Your task to perform on an android device: move a message to another label in the gmail app Image 0: 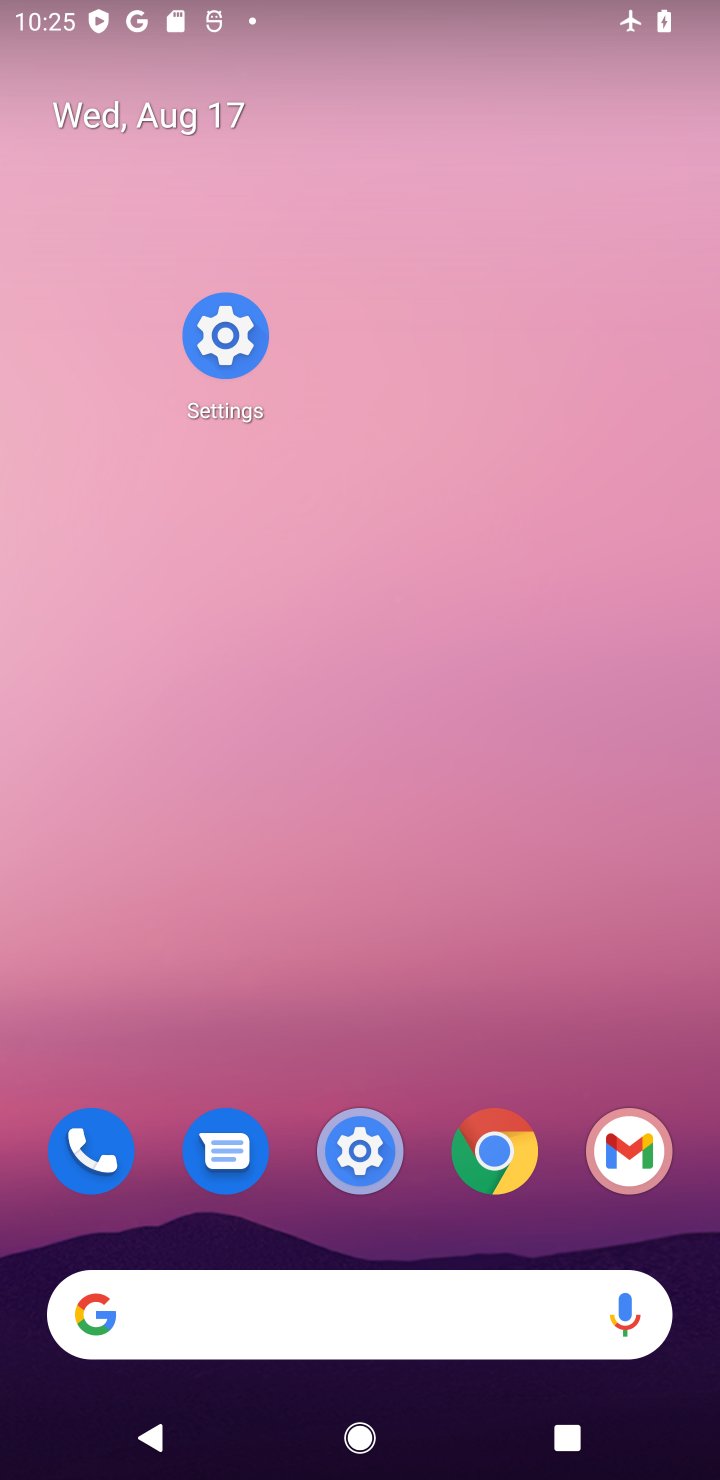
Step 0: click (351, 1250)
Your task to perform on an android device: move a message to another label in the gmail app Image 1: 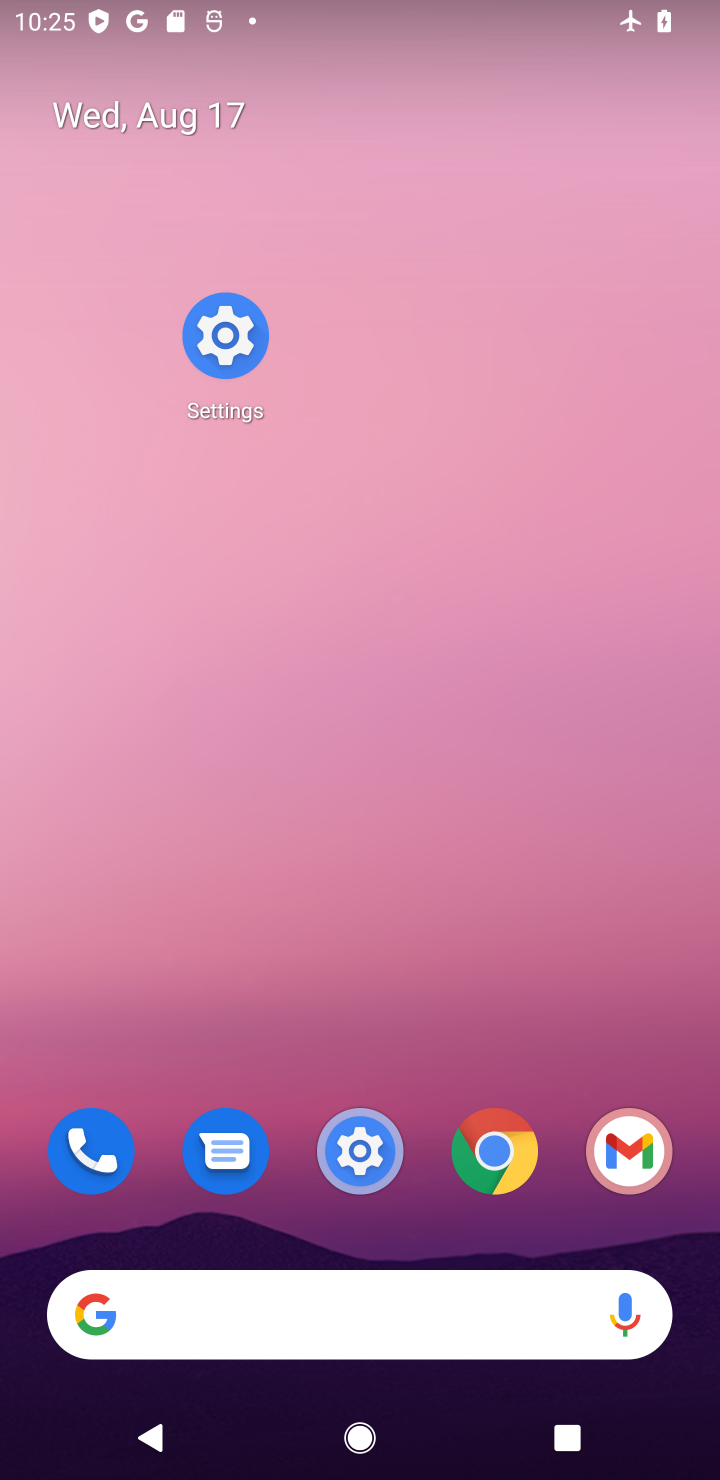
Step 1: click (631, 1148)
Your task to perform on an android device: move a message to another label in the gmail app Image 2: 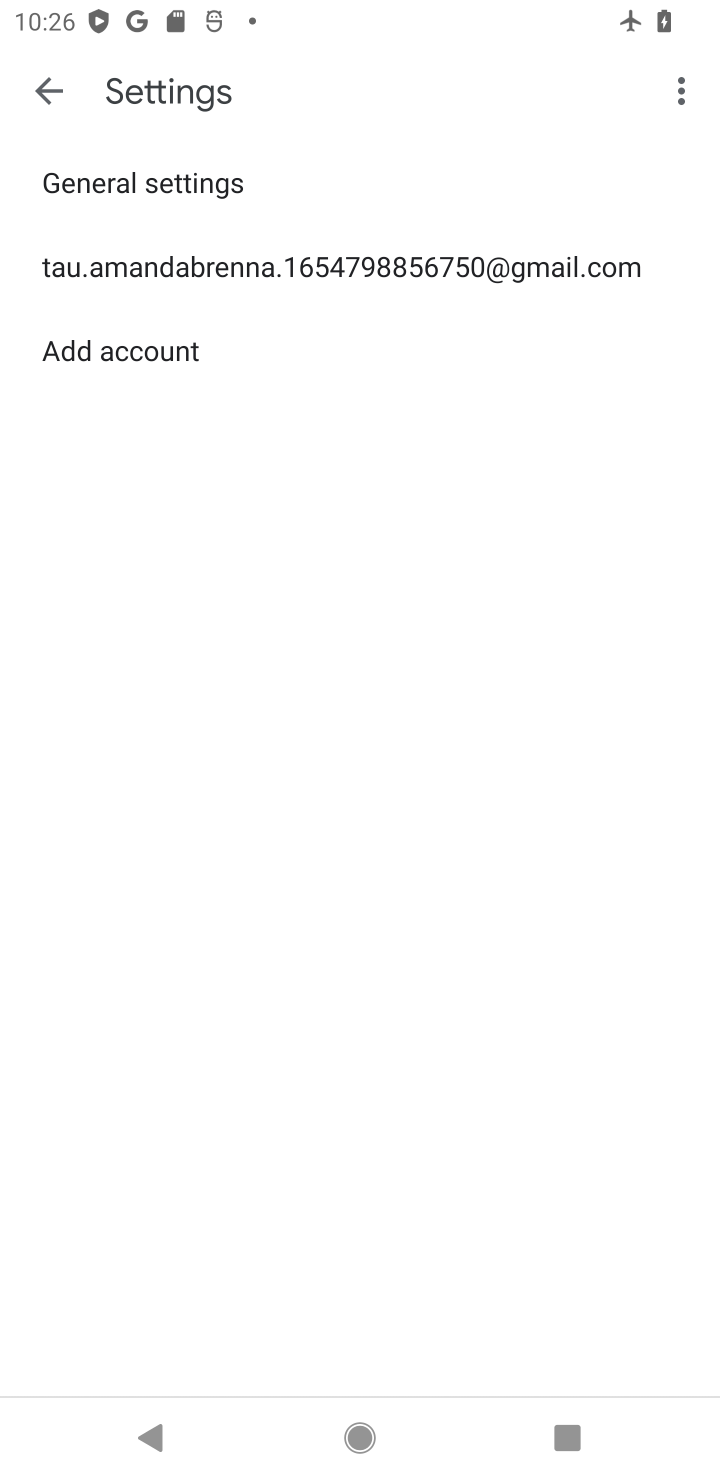
Step 2: click (29, 105)
Your task to perform on an android device: move a message to another label in the gmail app Image 3: 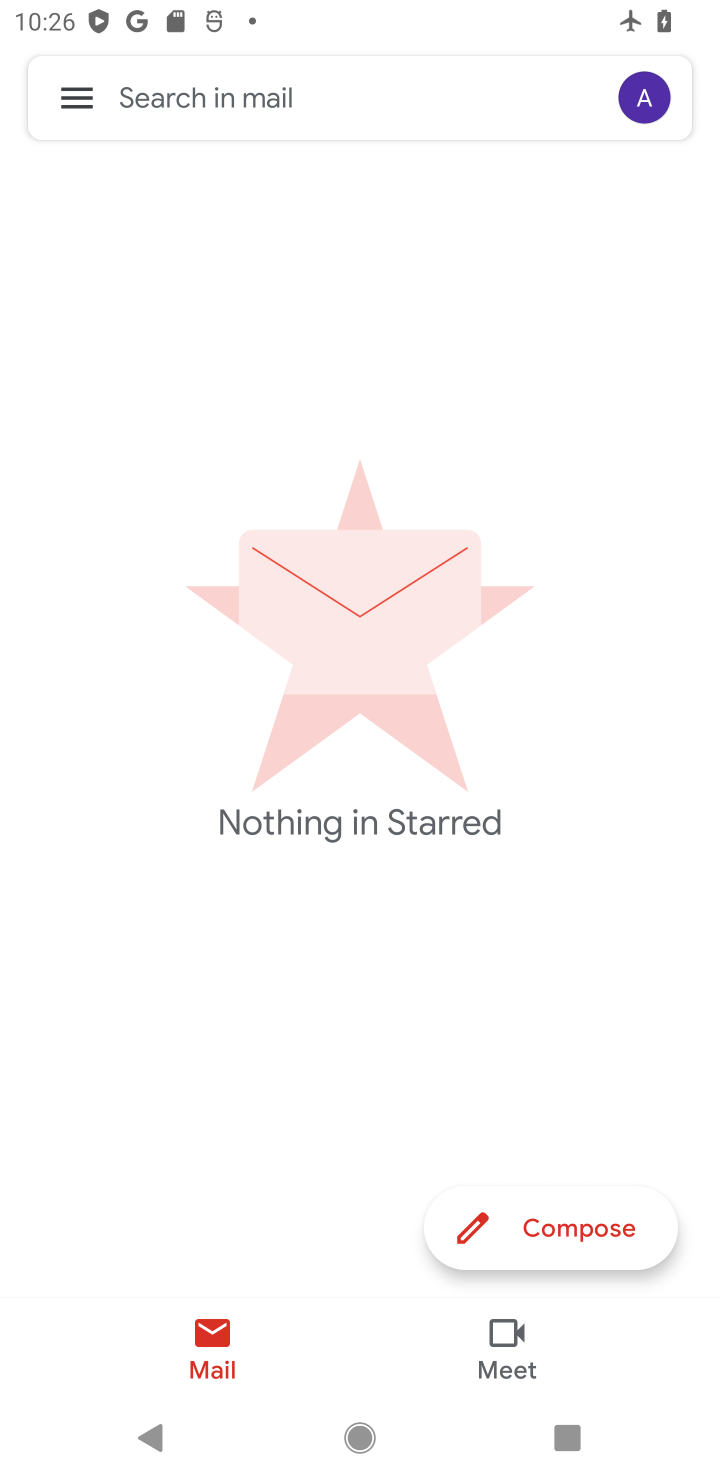
Step 3: click (70, 98)
Your task to perform on an android device: move a message to another label in the gmail app Image 4: 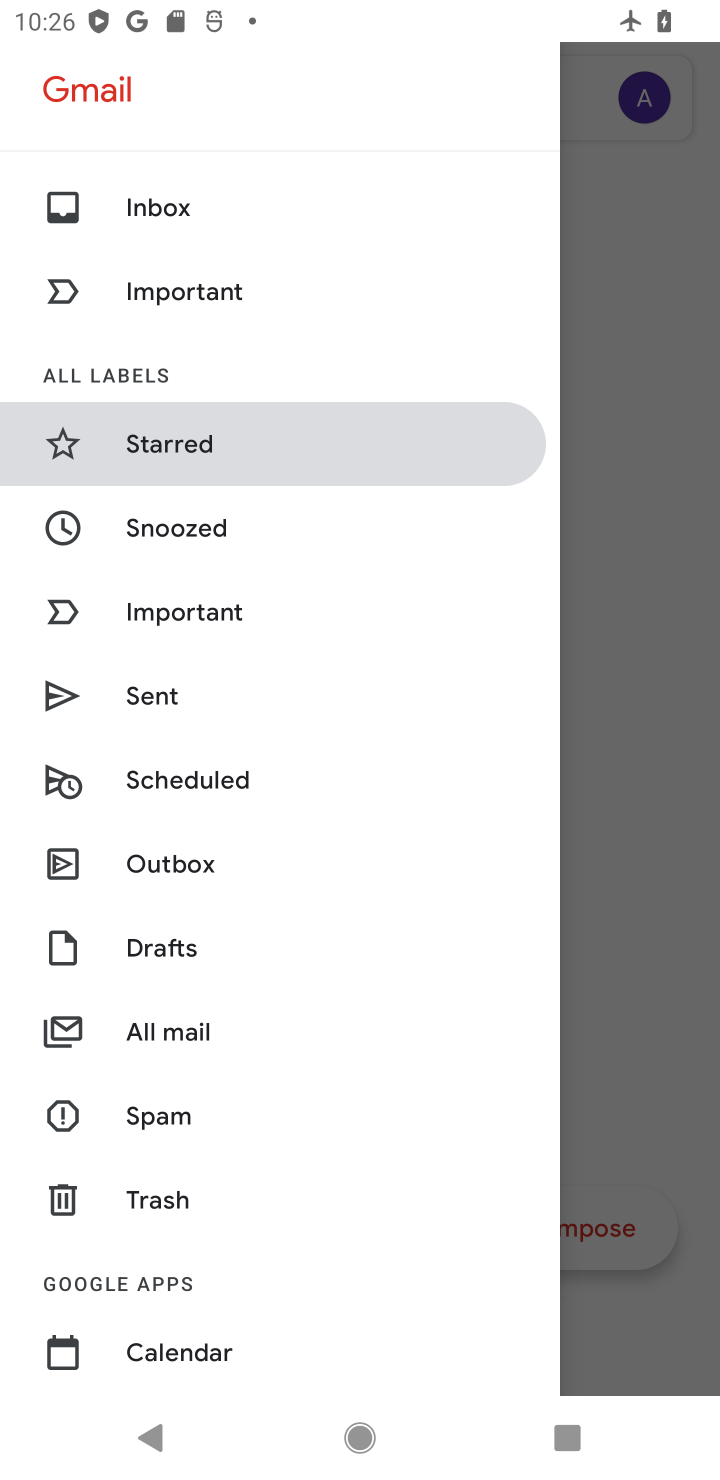
Step 4: click (156, 1023)
Your task to perform on an android device: move a message to another label in the gmail app Image 5: 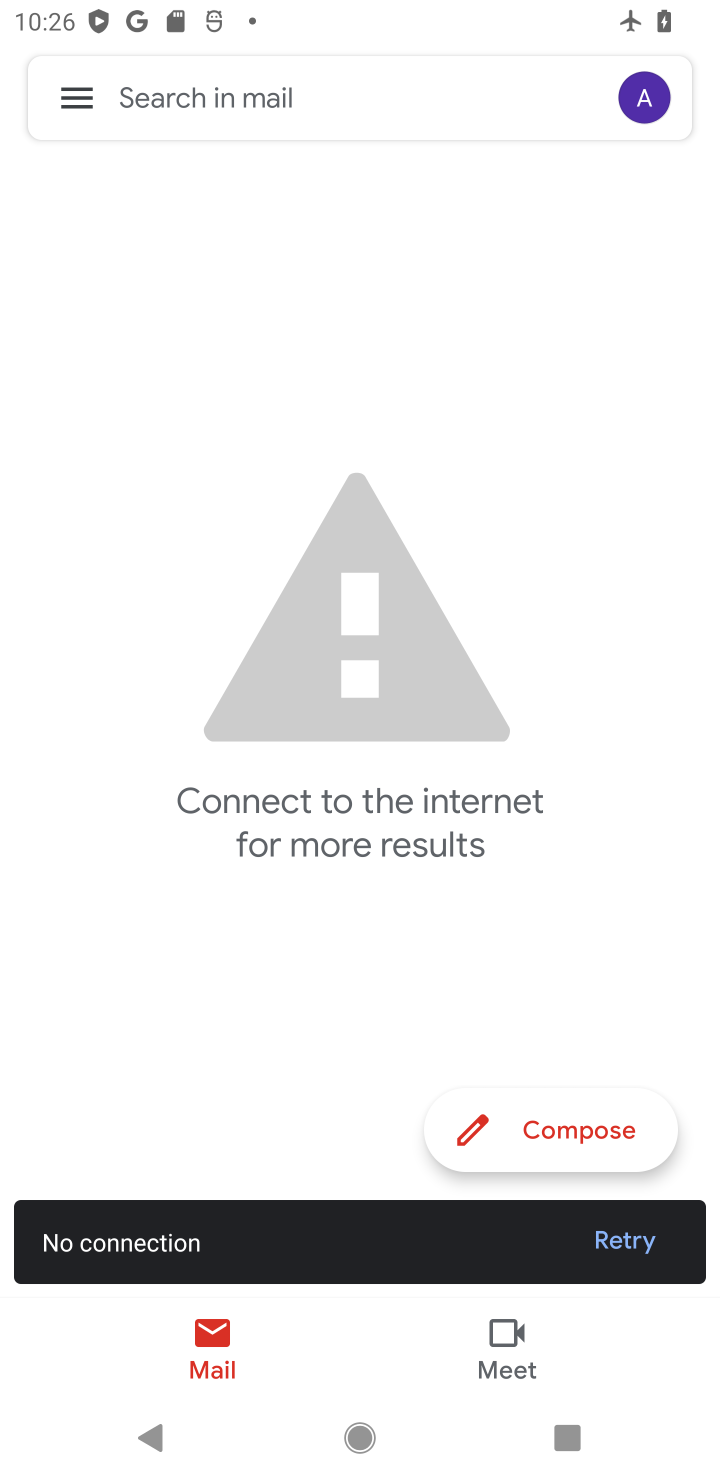
Step 5: task complete